Your task to perform on an android device: View the shopping cart on ebay. Add apple airpods to the cart on ebay Image 0: 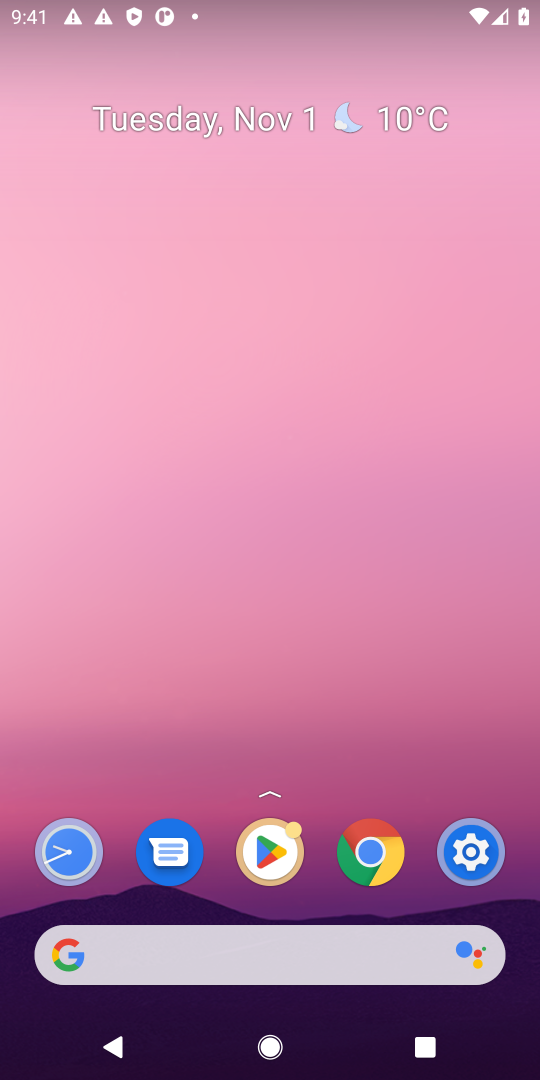
Step 0: press home button
Your task to perform on an android device: View the shopping cart on ebay. Add apple airpods to the cart on ebay Image 1: 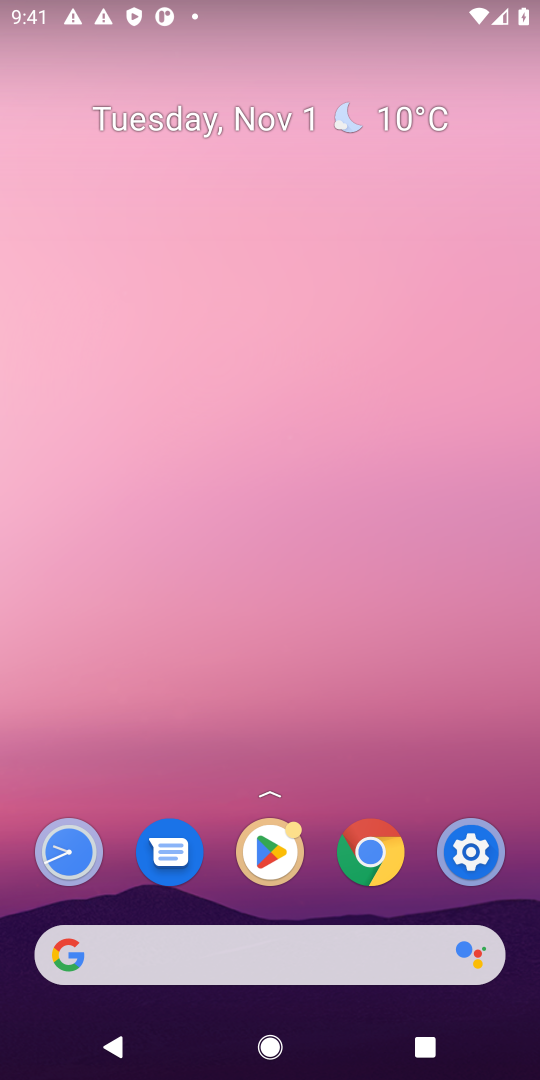
Step 1: click (60, 957)
Your task to perform on an android device: View the shopping cart on ebay. Add apple airpods to the cart on ebay Image 2: 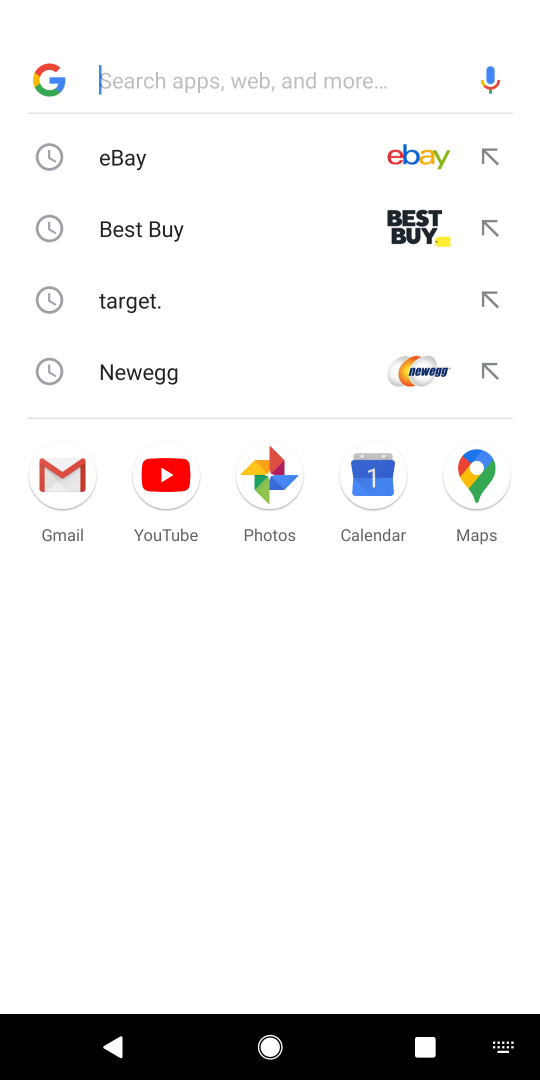
Step 2: click (136, 153)
Your task to perform on an android device: View the shopping cart on ebay. Add apple airpods to the cart on ebay Image 3: 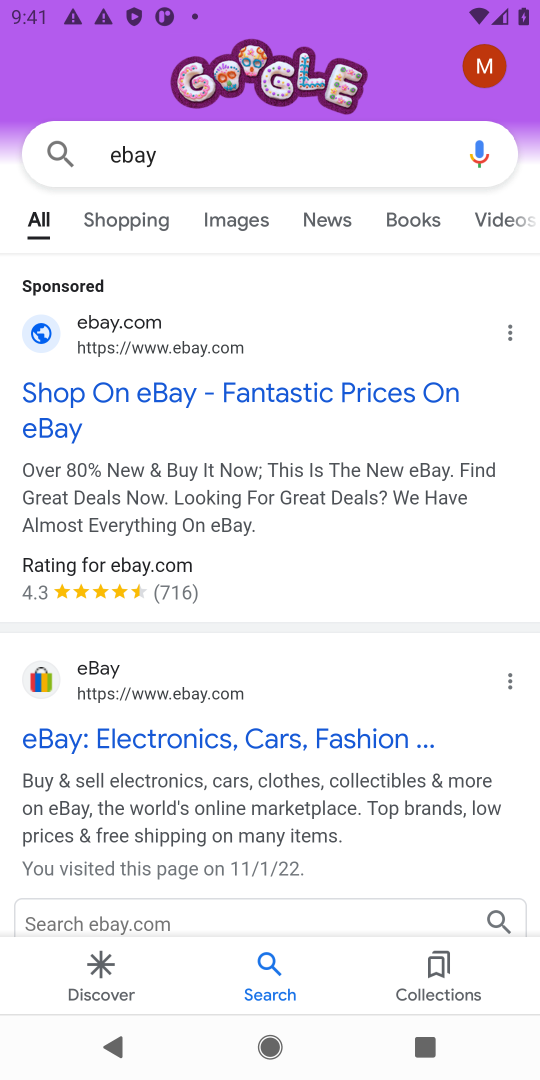
Step 3: click (47, 740)
Your task to perform on an android device: View the shopping cart on ebay. Add apple airpods to the cart on ebay Image 4: 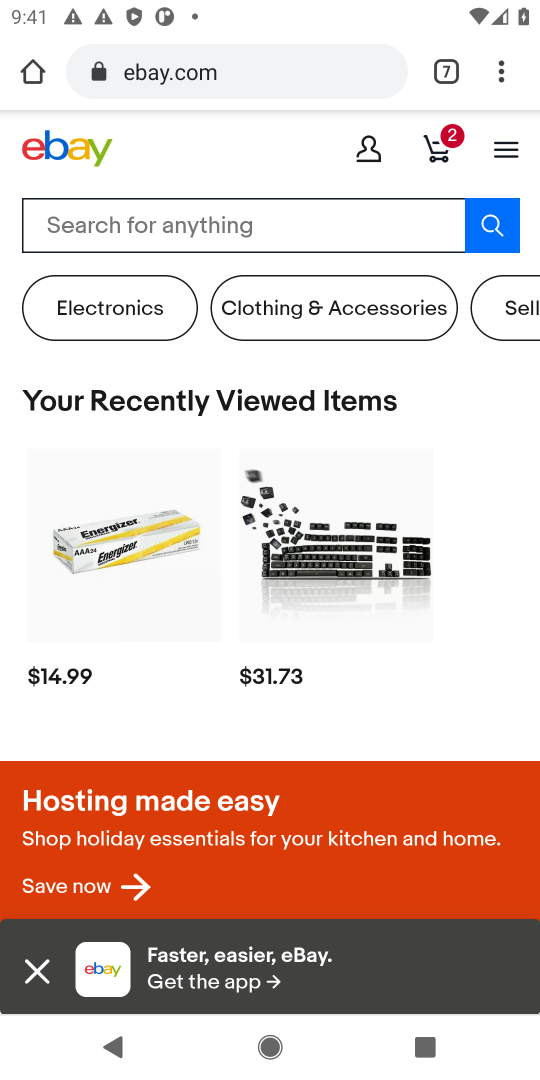
Step 4: click (92, 221)
Your task to perform on an android device: View the shopping cart on ebay. Add apple airpods to the cart on ebay Image 5: 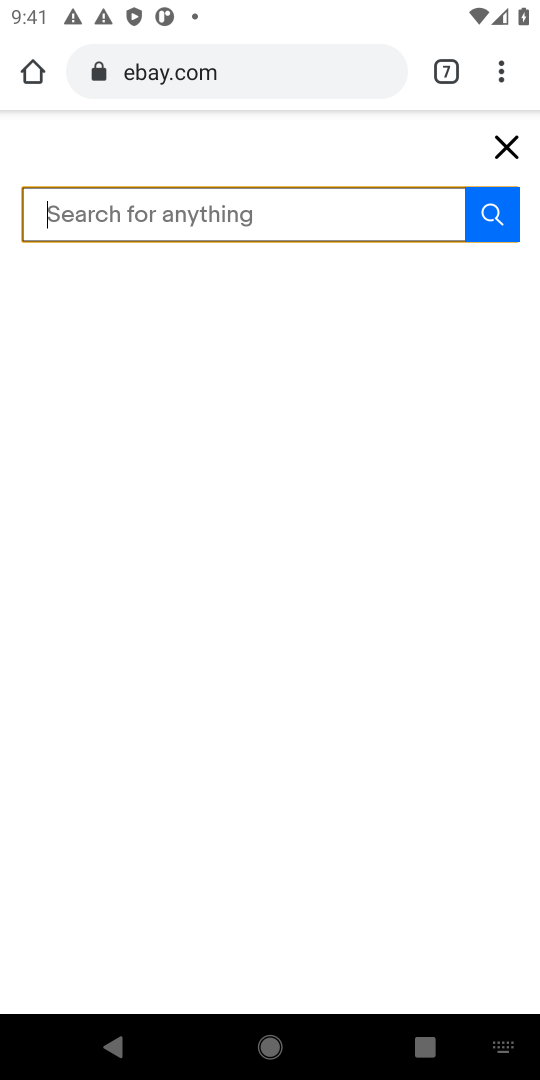
Step 5: type "apple airpods"
Your task to perform on an android device: View the shopping cart on ebay. Add apple airpods to the cart on ebay Image 6: 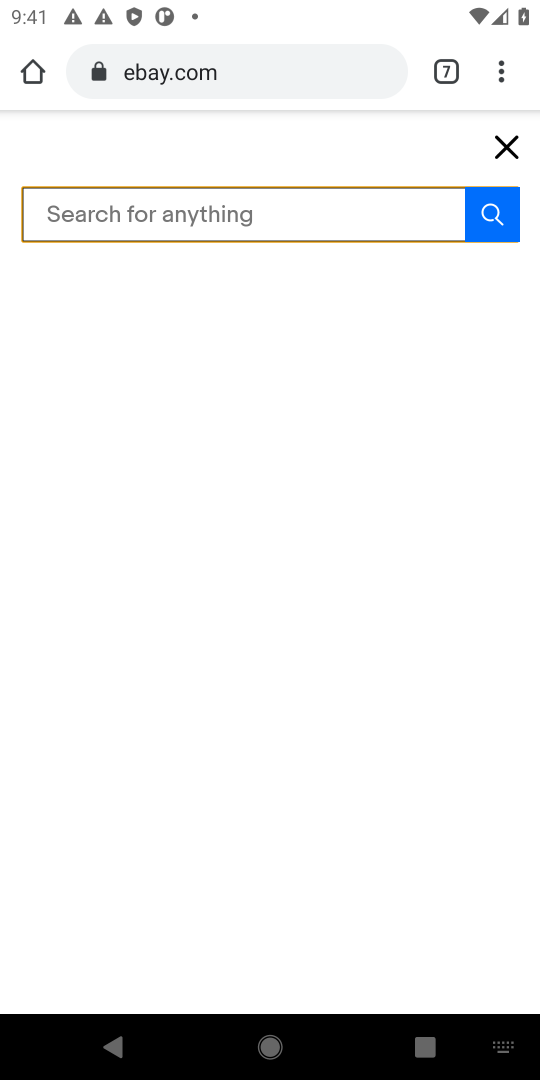
Step 6: click (83, 212)
Your task to perform on an android device: View the shopping cart on ebay. Add apple airpods to the cart on ebay Image 7: 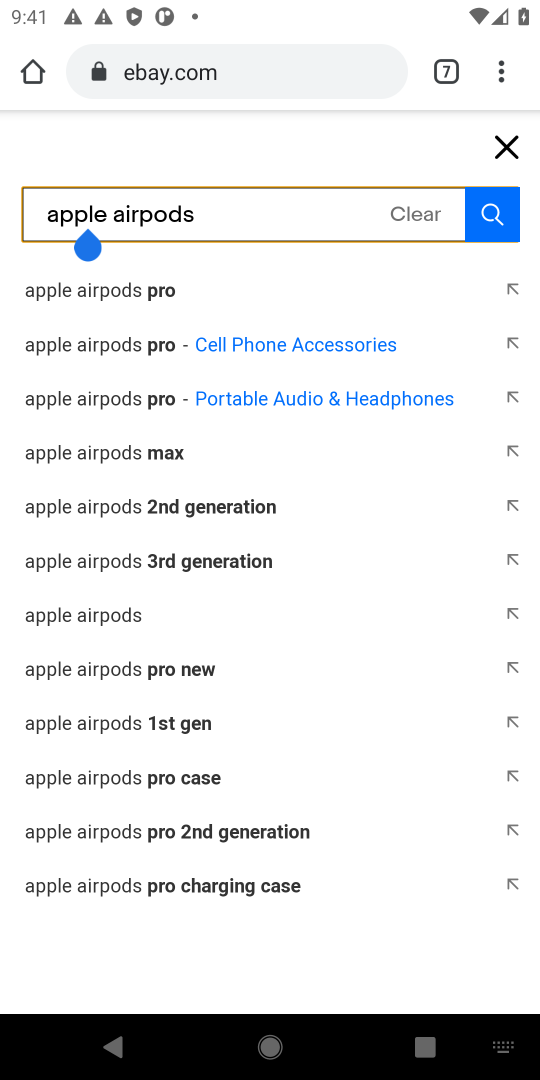
Step 7: press enter
Your task to perform on an android device: View the shopping cart on ebay. Add apple airpods to the cart on ebay Image 8: 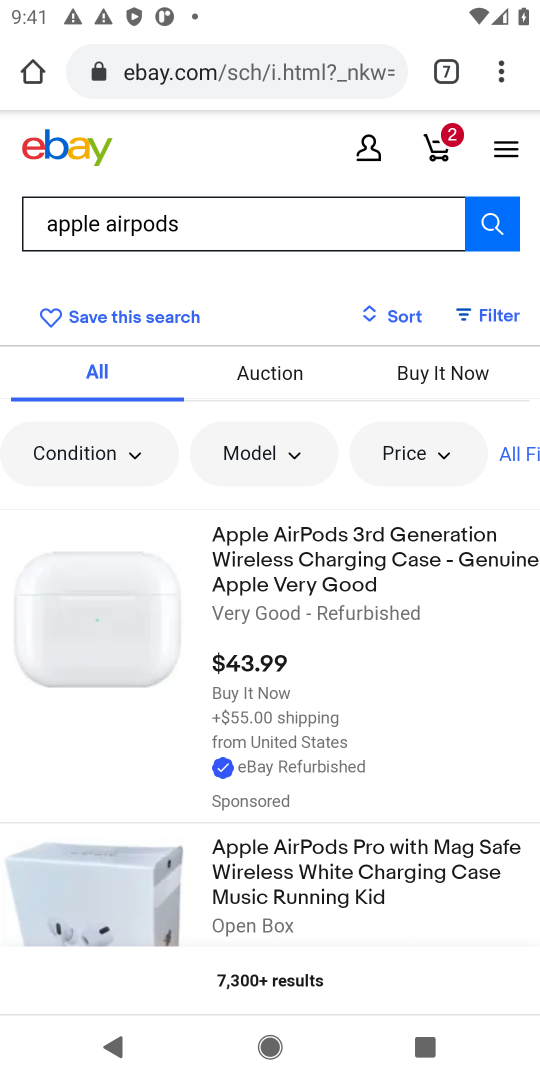
Step 8: click (387, 542)
Your task to perform on an android device: View the shopping cart on ebay. Add apple airpods to the cart on ebay Image 9: 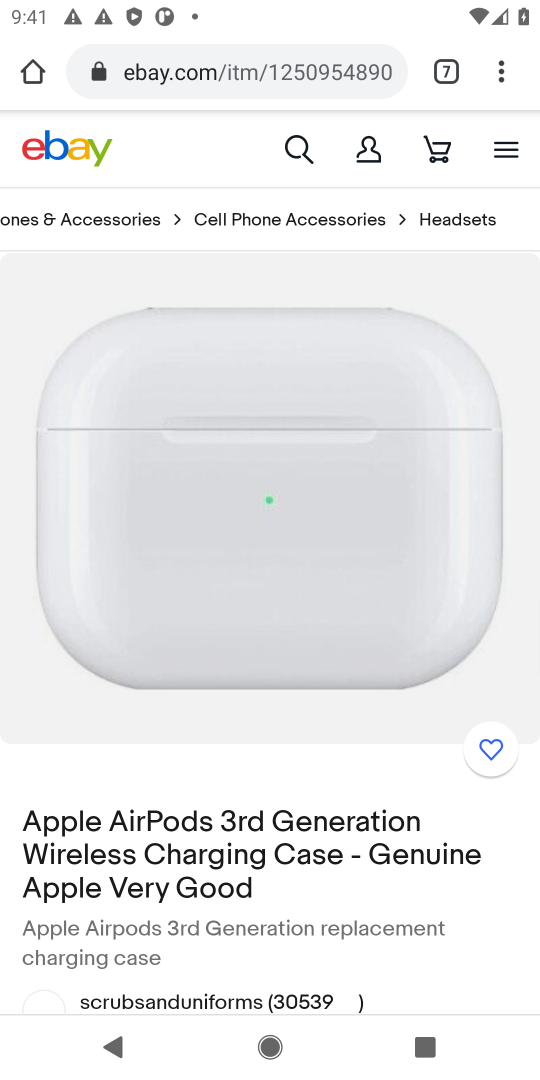
Step 9: drag from (397, 878) to (392, 459)
Your task to perform on an android device: View the shopping cart on ebay. Add apple airpods to the cart on ebay Image 10: 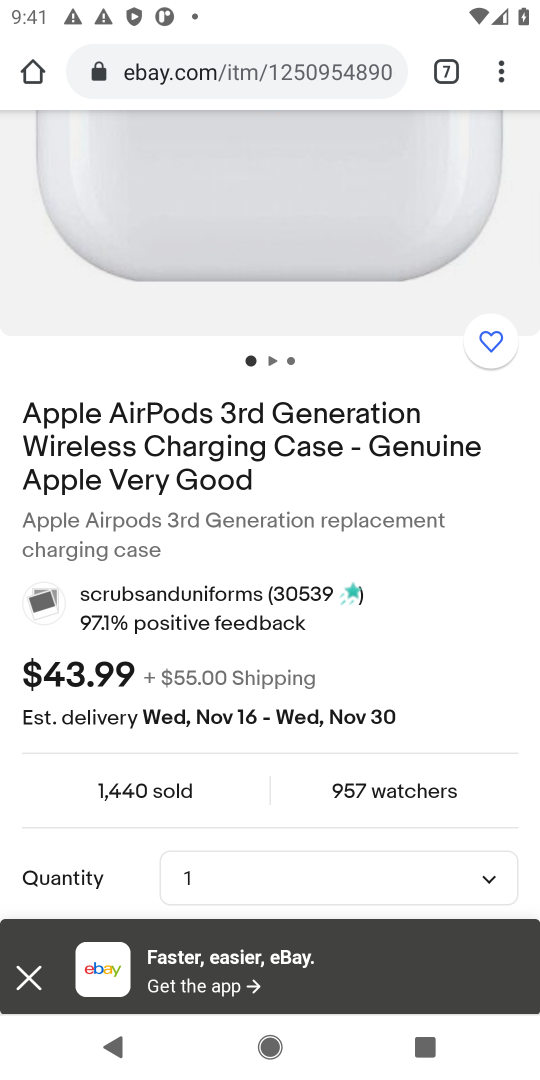
Step 10: drag from (458, 744) to (490, 382)
Your task to perform on an android device: View the shopping cart on ebay. Add apple airpods to the cart on ebay Image 11: 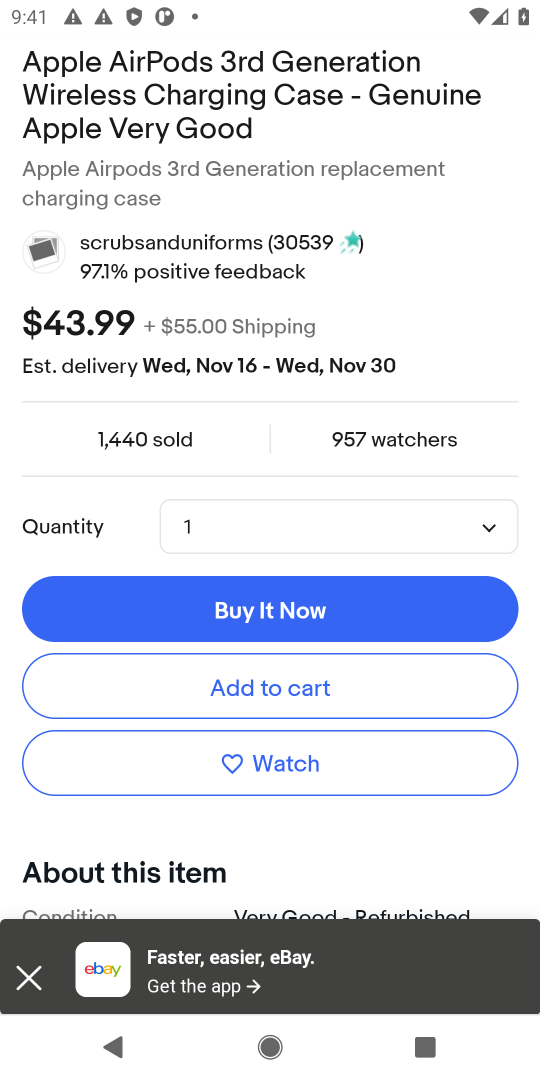
Step 11: click (299, 692)
Your task to perform on an android device: View the shopping cart on ebay. Add apple airpods to the cart on ebay Image 12: 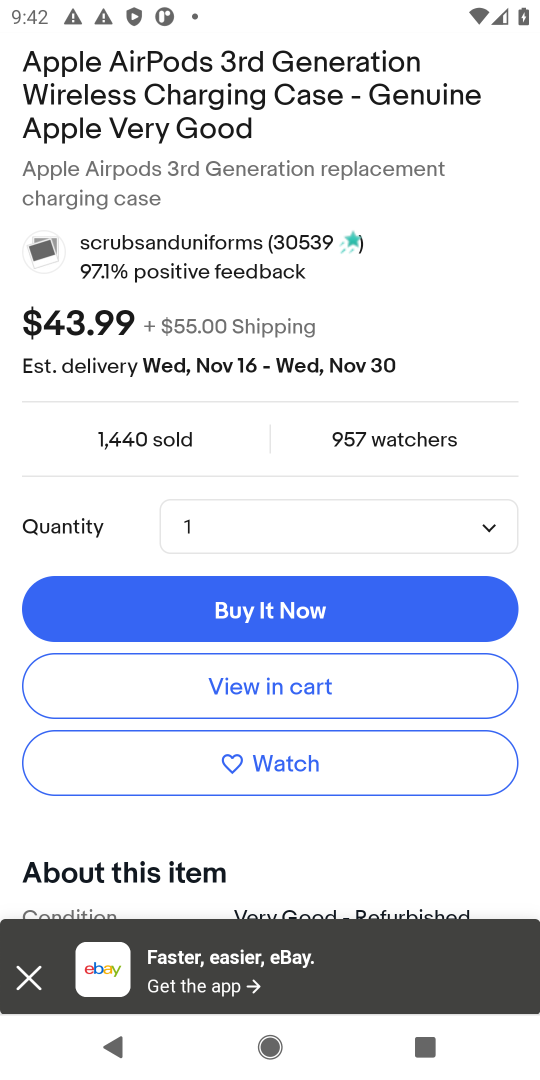
Step 12: task complete